Your task to perform on an android device: turn pop-ups off in chrome Image 0: 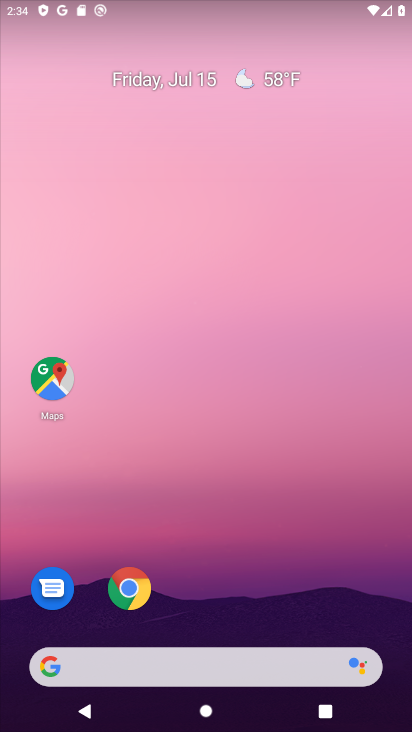
Step 0: click (153, 584)
Your task to perform on an android device: turn pop-ups off in chrome Image 1: 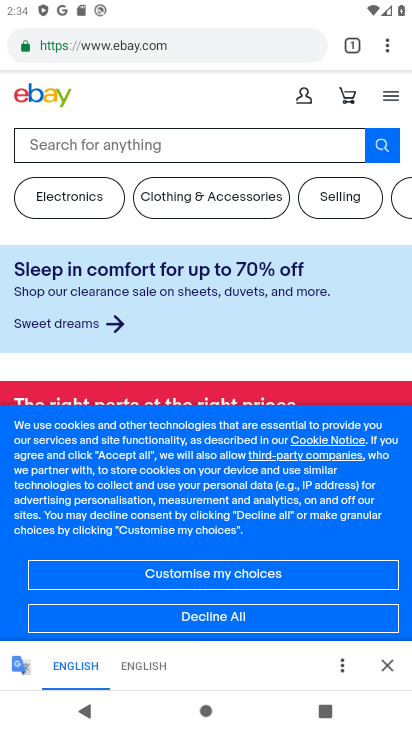
Step 1: click (381, 42)
Your task to perform on an android device: turn pop-ups off in chrome Image 2: 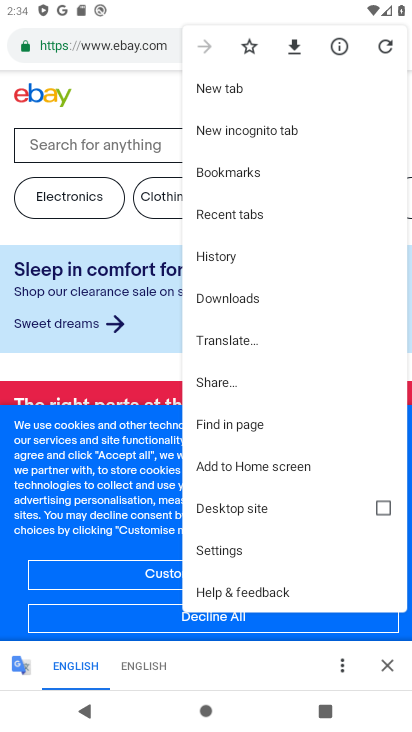
Step 2: click (229, 539)
Your task to perform on an android device: turn pop-ups off in chrome Image 3: 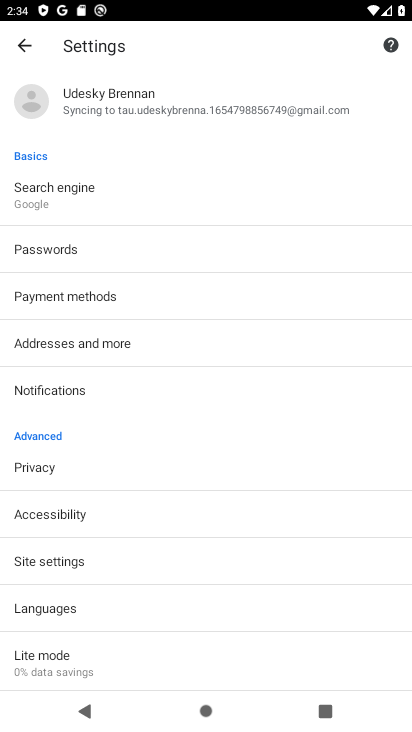
Step 3: click (75, 557)
Your task to perform on an android device: turn pop-ups off in chrome Image 4: 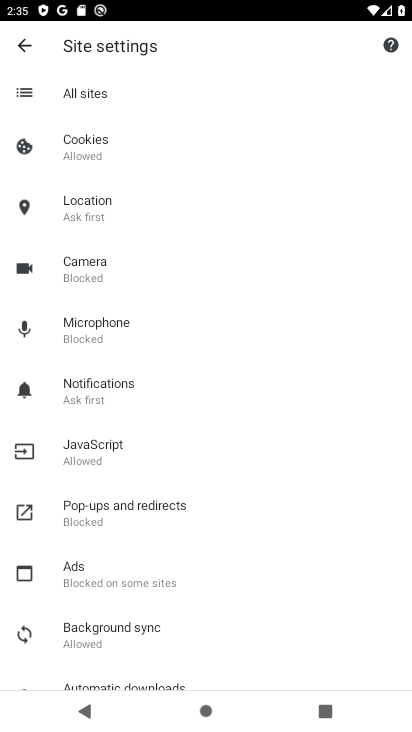
Step 4: click (137, 525)
Your task to perform on an android device: turn pop-ups off in chrome Image 5: 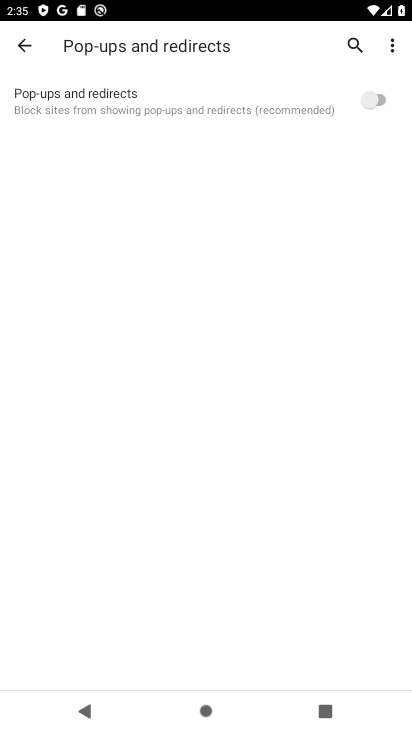
Step 5: task complete